Your task to perform on an android device: delete location history Image 0: 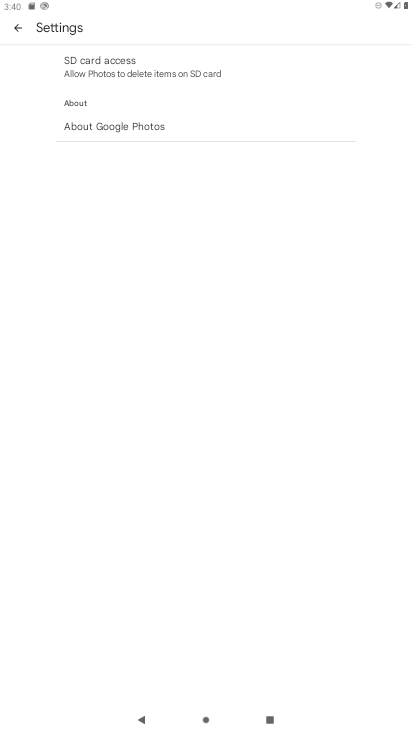
Step 0: press home button
Your task to perform on an android device: delete location history Image 1: 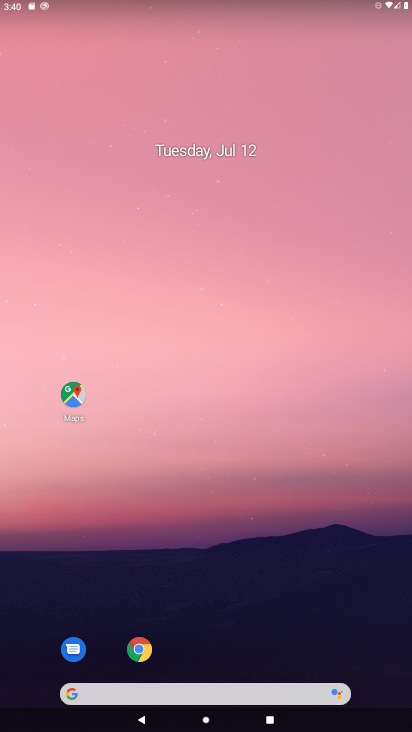
Step 1: drag from (278, 563) to (195, 237)
Your task to perform on an android device: delete location history Image 2: 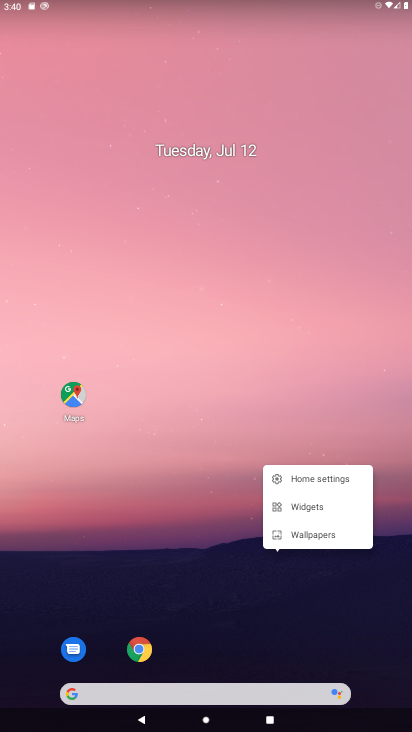
Step 2: click (191, 601)
Your task to perform on an android device: delete location history Image 3: 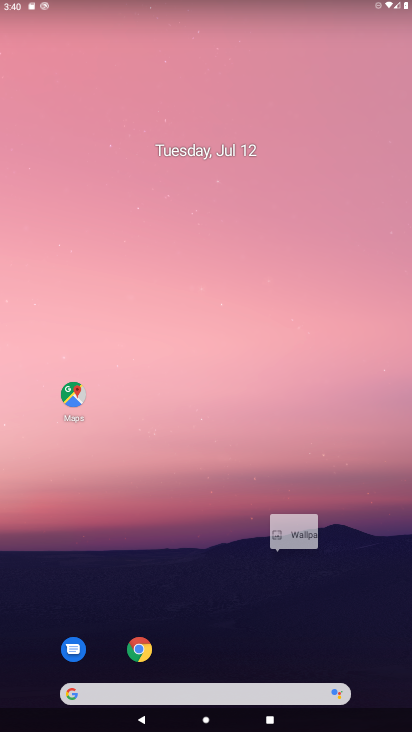
Step 3: drag from (191, 601) to (175, 162)
Your task to perform on an android device: delete location history Image 4: 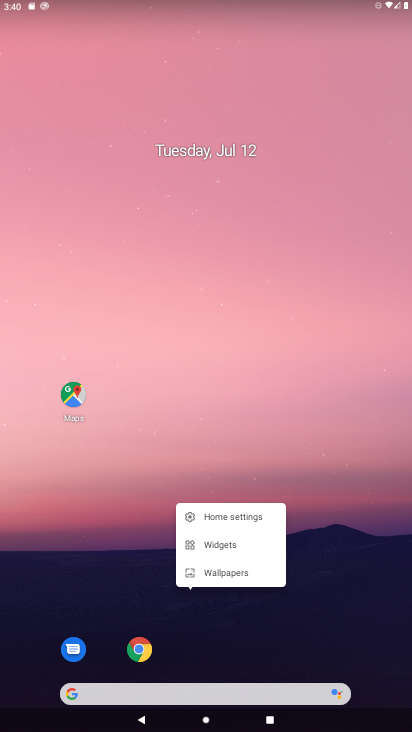
Step 4: click (199, 317)
Your task to perform on an android device: delete location history Image 5: 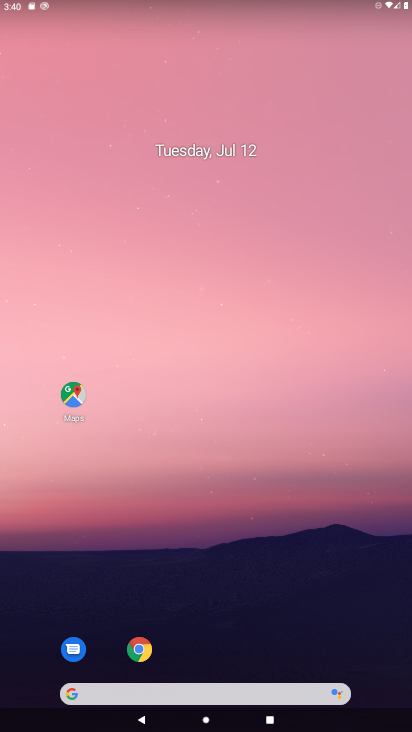
Step 5: drag from (289, 639) to (251, 13)
Your task to perform on an android device: delete location history Image 6: 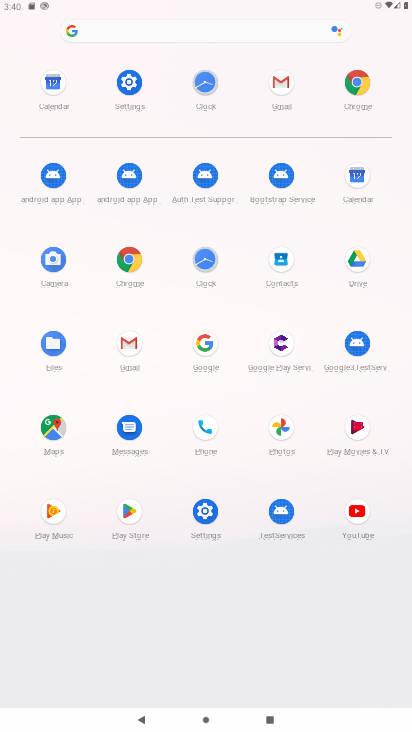
Step 6: click (129, 99)
Your task to perform on an android device: delete location history Image 7: 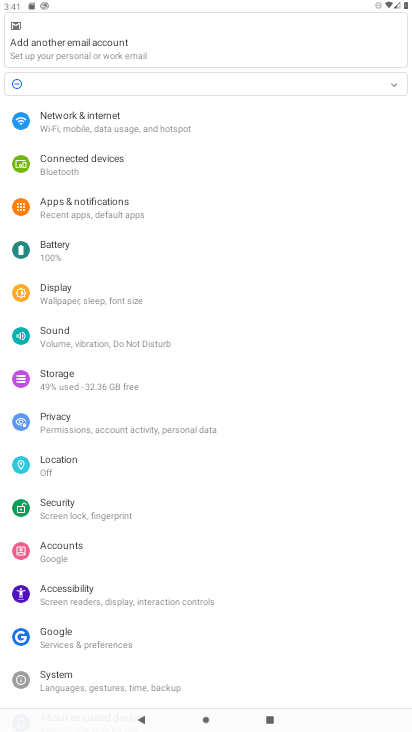
Step 7: click (110, 451)
Your task to perform on an android device: delete location history Image 8: 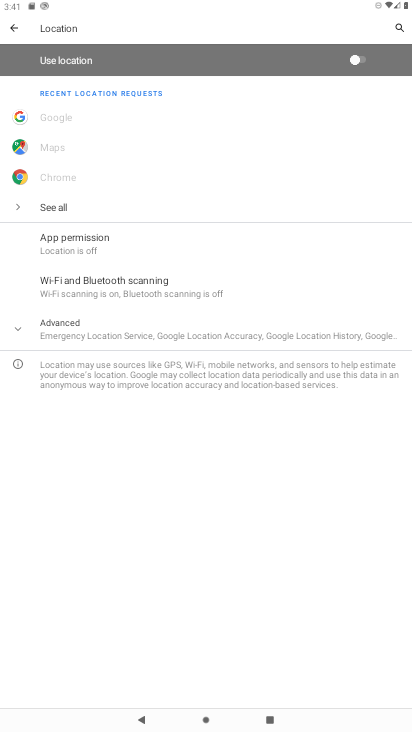
Step 8: task complete